Your task to perform on an android device: toggle pop-ups in chrome Image 0: 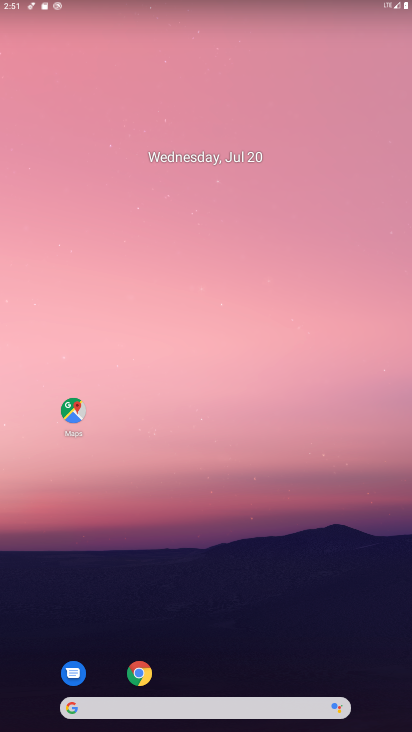
Step 0: click (139, 670)
Your task to perform on an android device: toggle pop-ups in chrome Image 1: 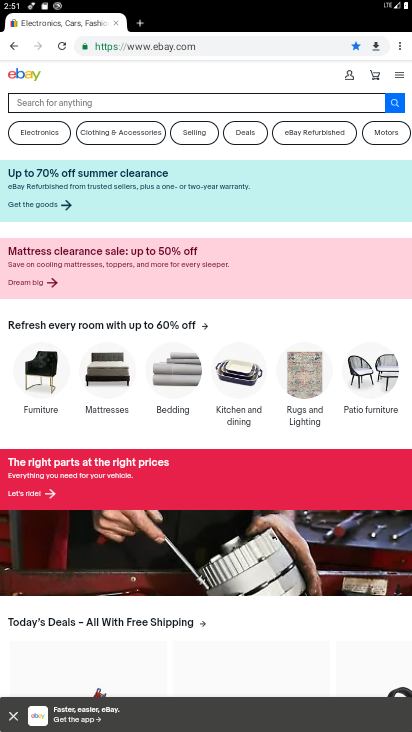
Step 1: click (400, 46)
Your task to perform on an android device: toggle pop-ups in chrome Image 2: 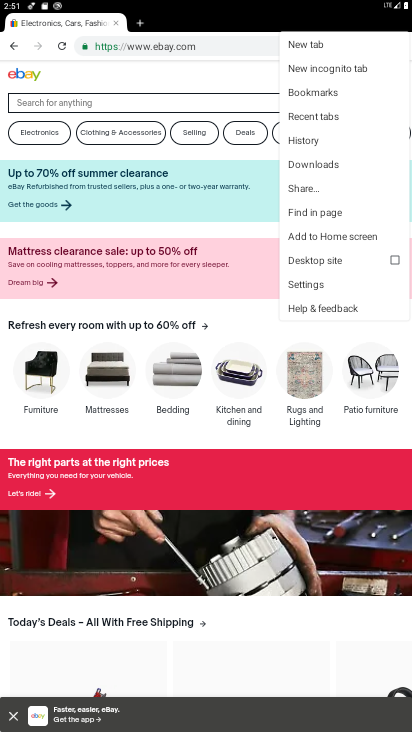
Step 2: click (321, 284)
Your task to perform on an android device: toggle pop-ups in chrome Image 3: 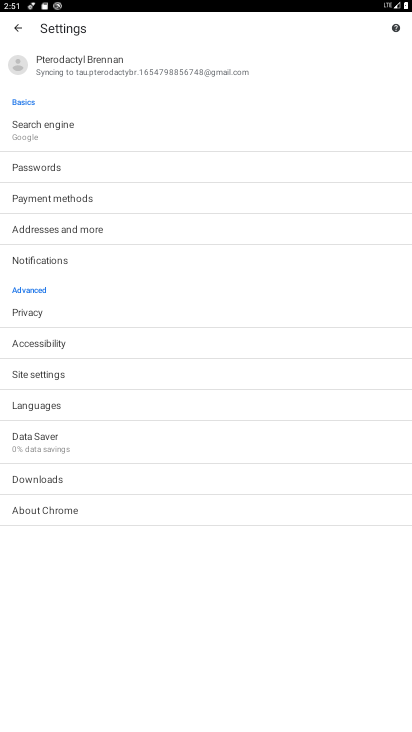
Step 3: click (43, 373)
Your task to perform on an android device: toggle pop-ups in chrome Image 4: 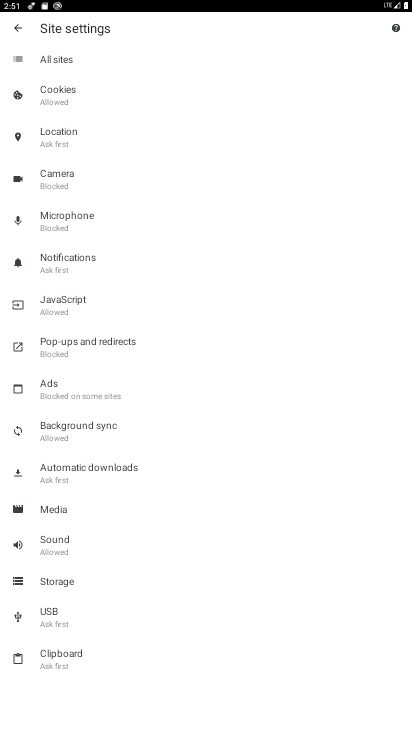
Step 4: click (81, 353)
Your task to perform on an android device: toggle pop-ups in chrome Image 5: 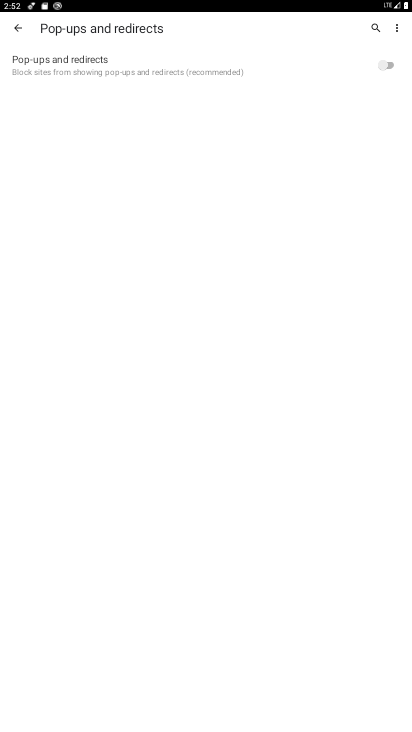
Step 5: click (350, 63)
Your task to perform on an android device: toggle pop-ups in chrome Image 6: 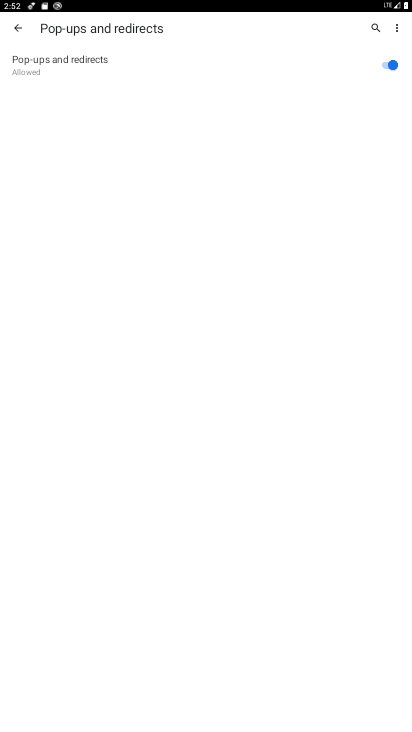
Step 6: task complete